Your task to perform on an android device: manage bookmarks in the chrome app Image 0: 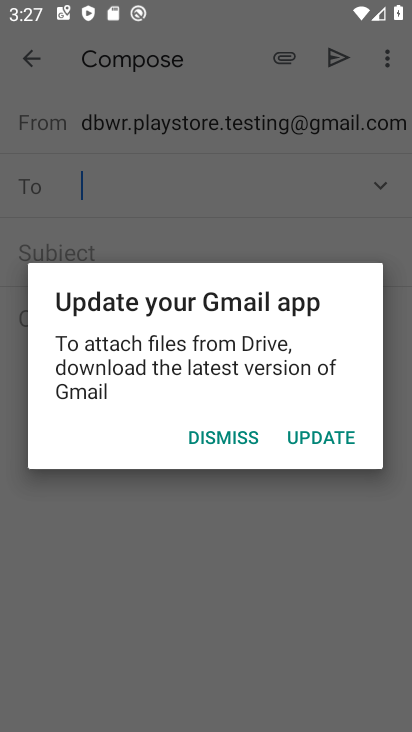
Step 0: press home button
Your task to perform on an android device: manage bookmarks in the chrome app Image 1: 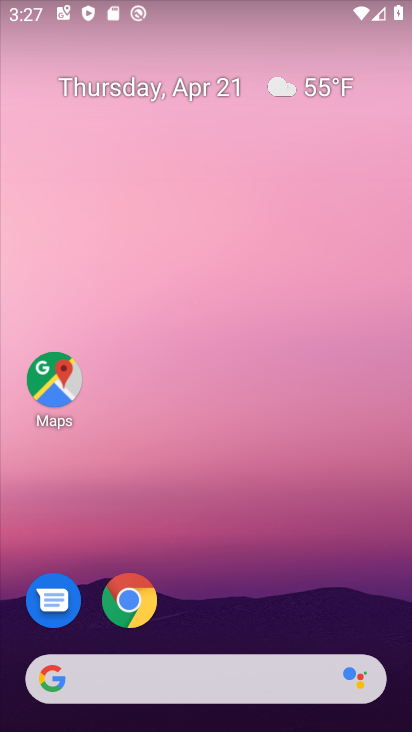
Step 1: drag from (171, 672) to (278, 202)
Your task to perform on an android device: manage bookmarks in the chrome app Image 2: 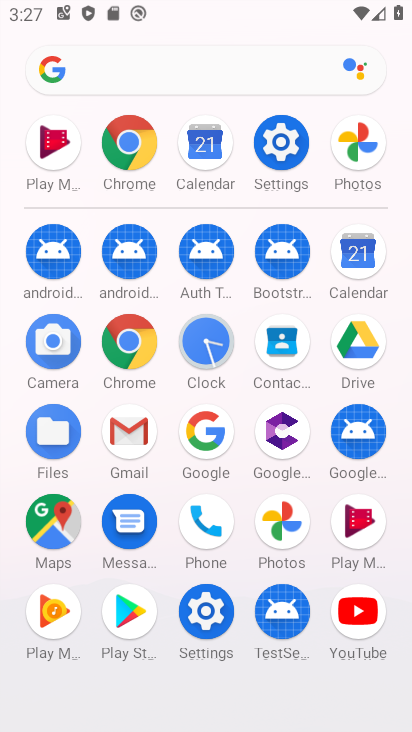
Step 2: click (127, 352)
Your task to perform on an android device: manage bookmarks in the chrome app Image 3: 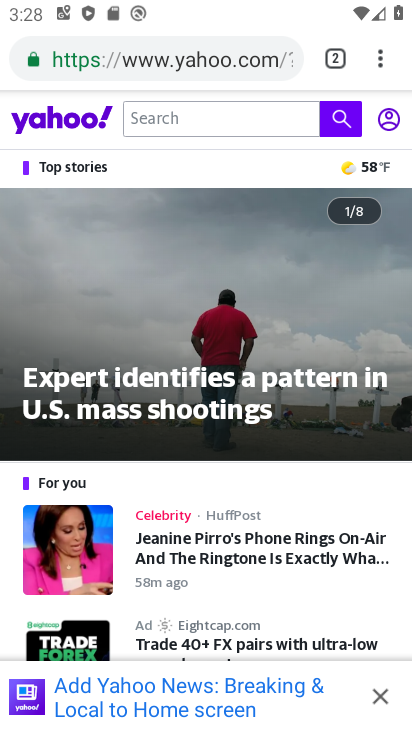
Step 3: click (372, 71)
Your task to perform on an android device: manage bookmarks in the chrome app Image 4: 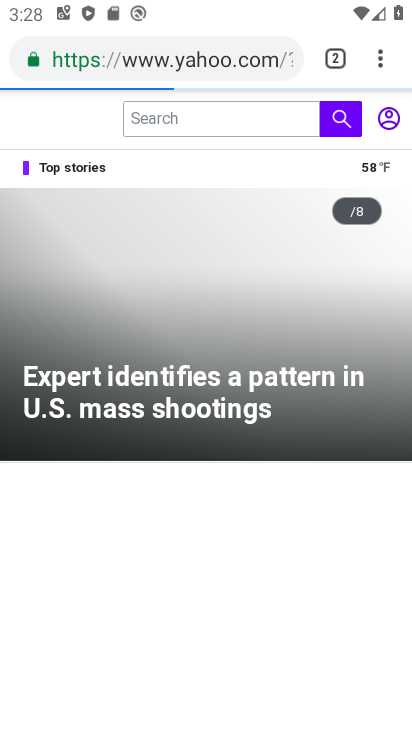
Step 4: click (373, 72)
Your task to perform on an android device: manage bookmarks in the chrome app Image 5: 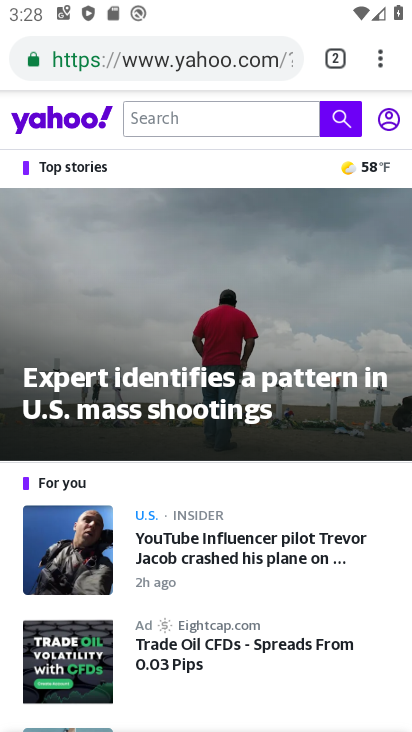
Step 5: click (376, 74)
Your task to perform on an android device: manage bookmarks in the chrome app Image 6: 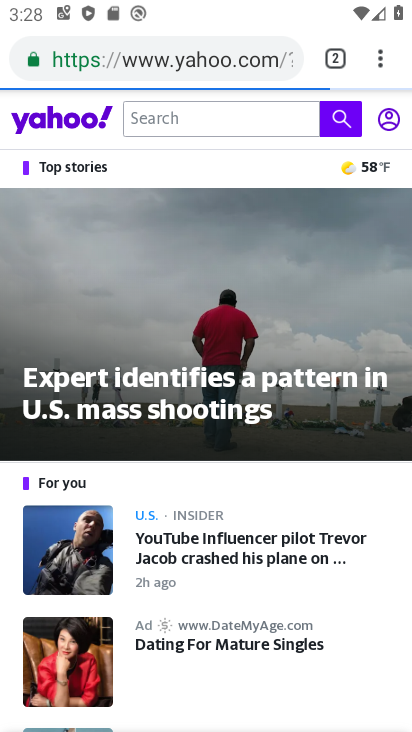
Step 6: click (370, 69)
Your task to perform on an android device: manage bookmarks in the chrome app Image 7: 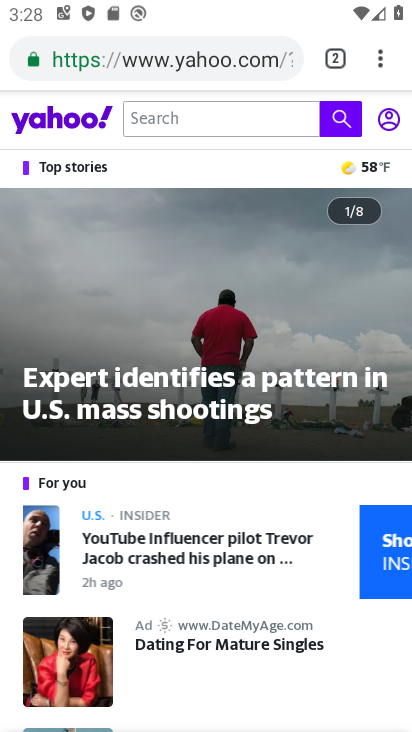
Step 7: click (368, 69)
Your task to perform on an android device: manage bookmarks in the chrome app Image 8: 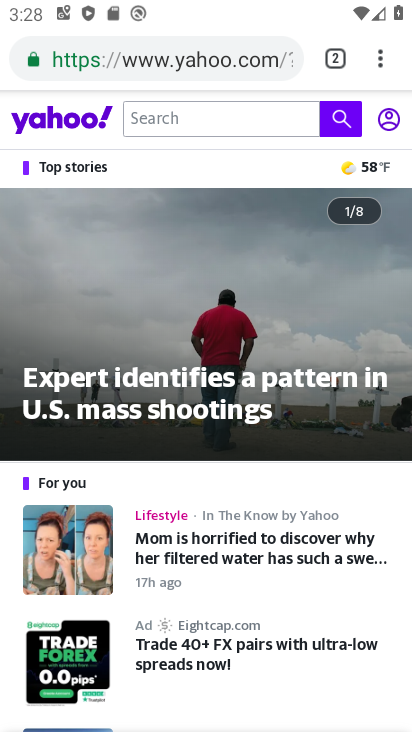
Step 8: click (394, 68)
Your task to perform on an android device: manage bookmarks in the chrome app Image 9: 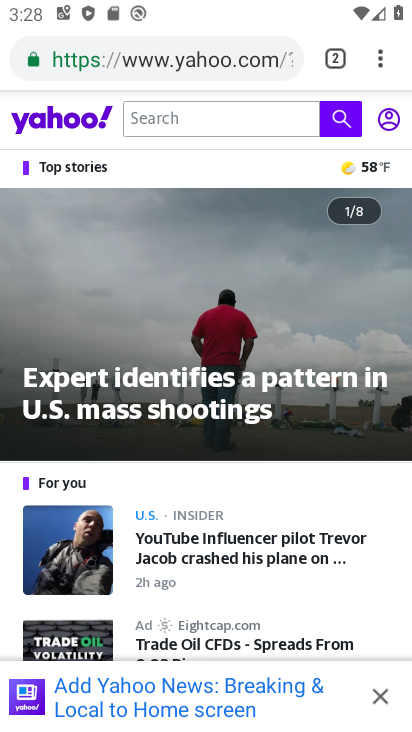
Step 9: click (396, 68)
Your task to perform on an android device: manage bookmarks in the chrome app Image 10: 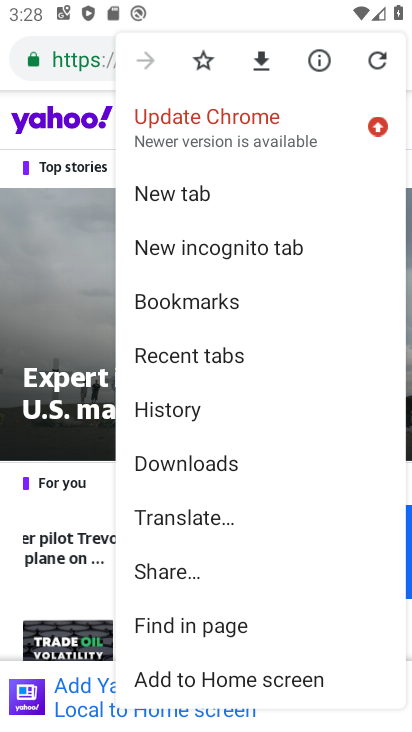
Step 10: click (218, 297)
Your task to perform on an android device: manage bookmarks in the chrome app Image 11: 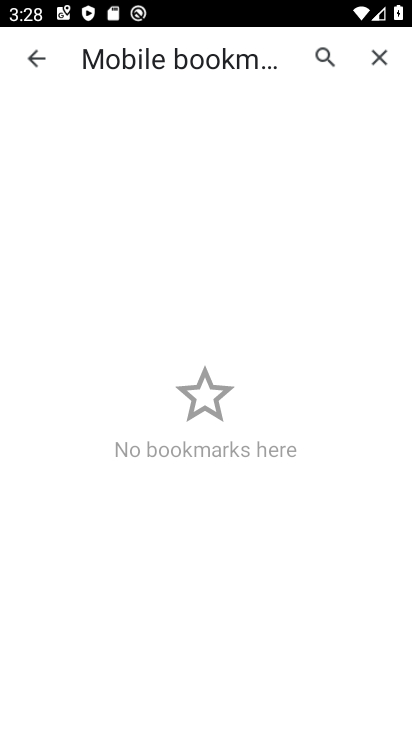
Step 11: task complete